Your task to perform on an android device: Open calendar and show me the second week of next month Image 0: 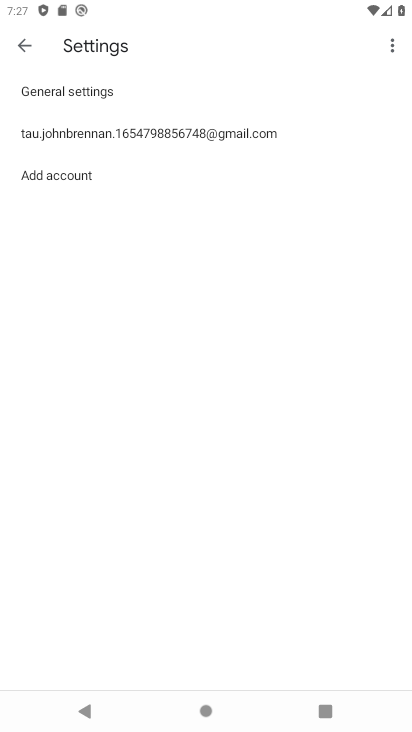
Step 0: press home button
Your task to perform on an android device: Open calendar and show me the second week of next month Image 1: 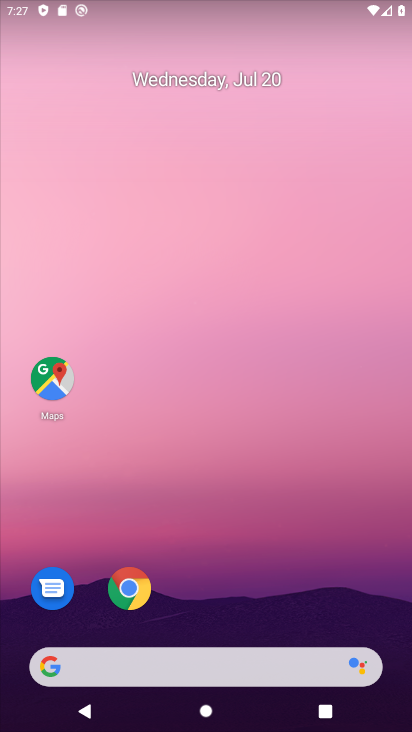
Step 1: drag from (211, 702) to (171, 173)
Your task to perform on an android device: Open calendar and show me the second week of next month Image 2: 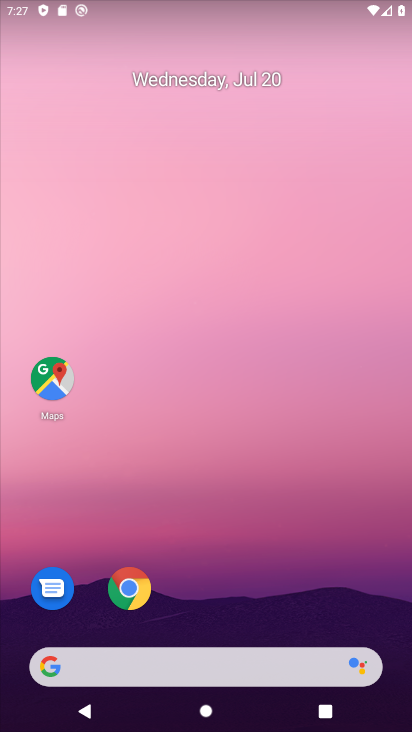
Step 2: drag from (266, 653) to (171, 10)
Your task to perform on an android device: Open calendar and show me the second week of next month Image 3: 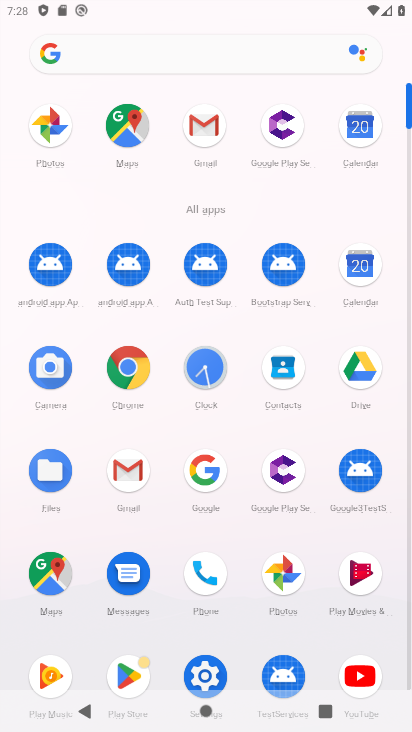
Step 3: click (355, 247)
Your task to perform on an android device: Open calendar and show me the second week of next month Image 4: 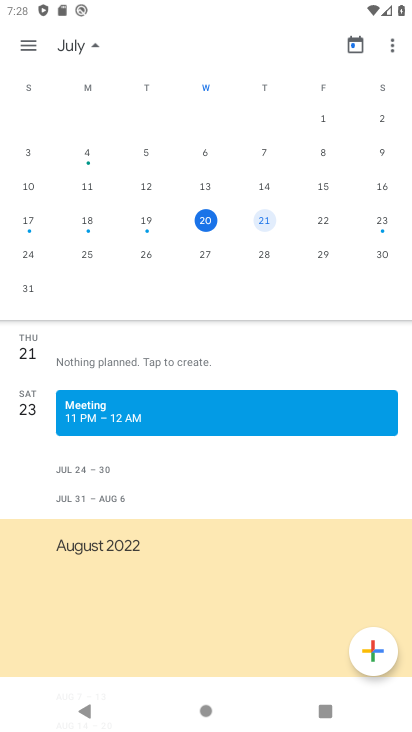
Step 4: drag from (356, 140) to (70, 230)
Your task to perform on an android device: Open calendar and show me the second week of next month Image 5: 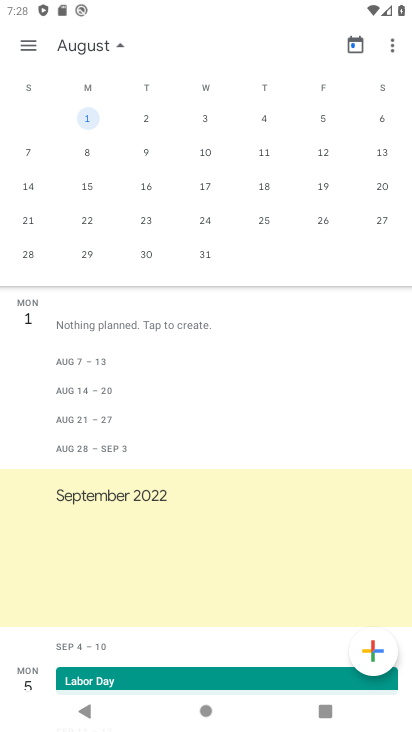
Step 5: click (24, 148)
Your task to perform on an android device: Open calendar and show me the second week of next month Image 6: 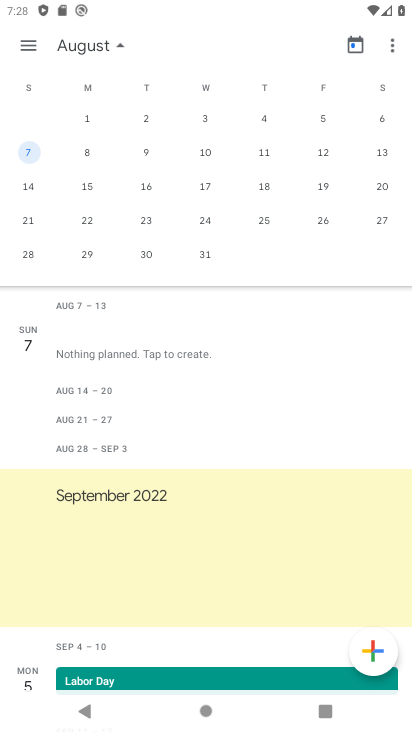
Step 6: task complete